Your task to perform on an android device: Go to Wikipedia Image 0: 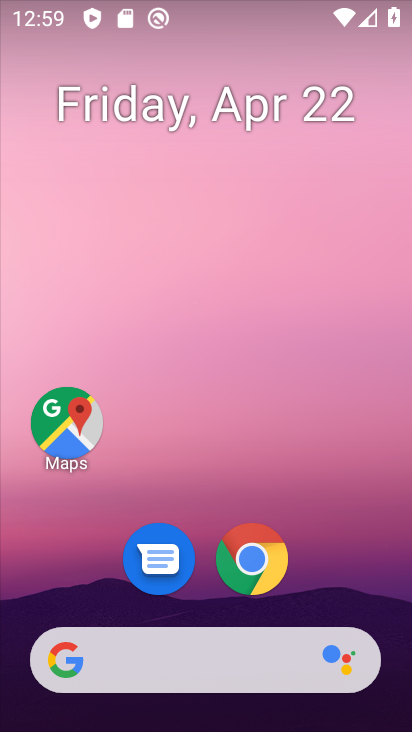
Step 0: drag from (354, 600) to (284, 130)
Your task to perform on an android device: Go to Wikipedia Image 1: 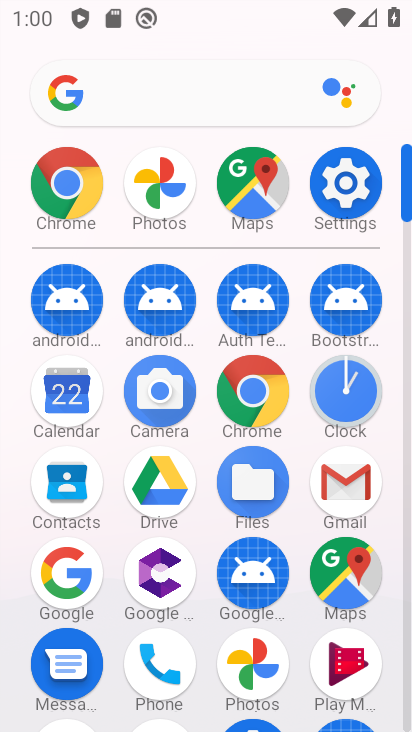
Step 1: click (270, 383)
Your task to perform on an android device: Go to Wikipedia Image 2: 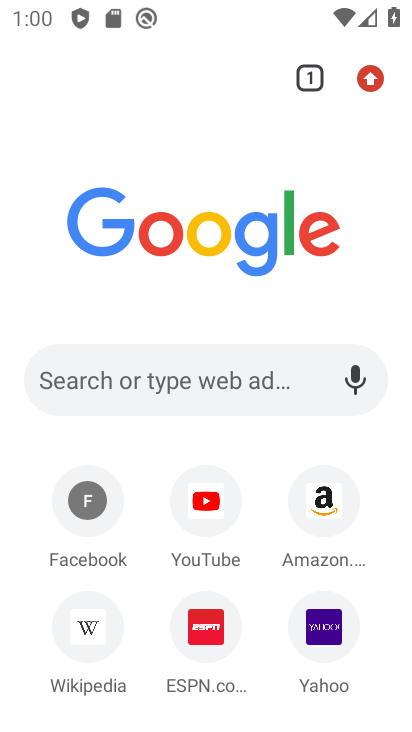
Step 2: click (88, 638)
Your task to perform on an android device: Go to Wikipedia Image 3: 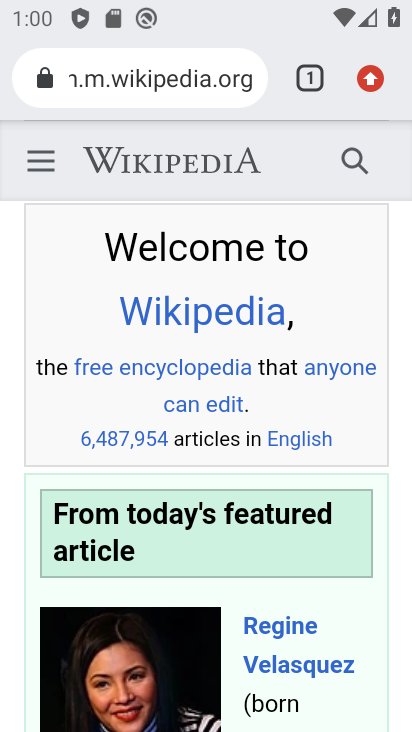
Step 3: task complete